Your task to perform on an android device: open chrome privacy settings Image 0: 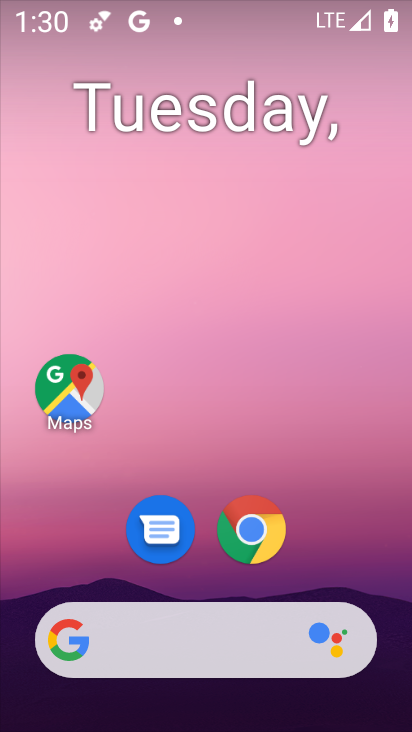
Step 0: click (266, 534)
Your task to perform on an android device: open chrome privacy settings Image 1: 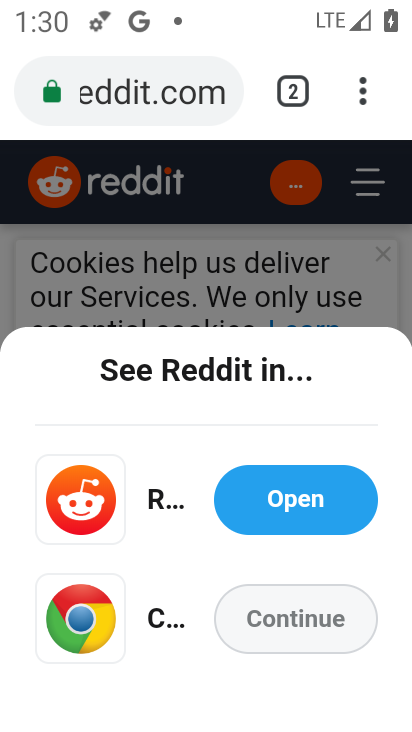
Step 1: click (362, 94)
Your task to perform on an android device: open chrome privacy settings Image 2: 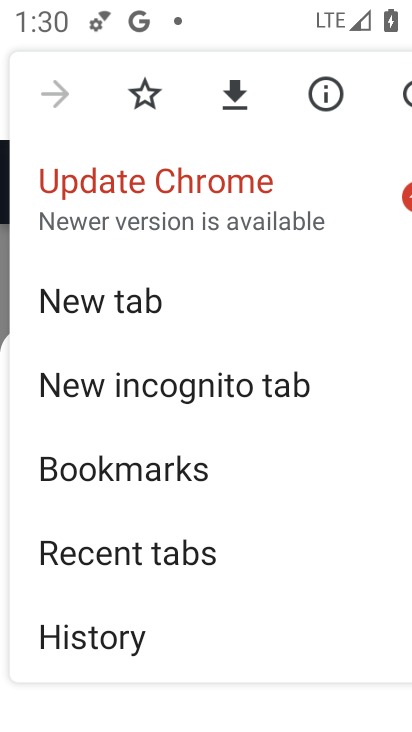
Step 2: drag from (322, 570) to (316, 289)
Your task to perform on an android device: open chrome privacy settings Image 3: 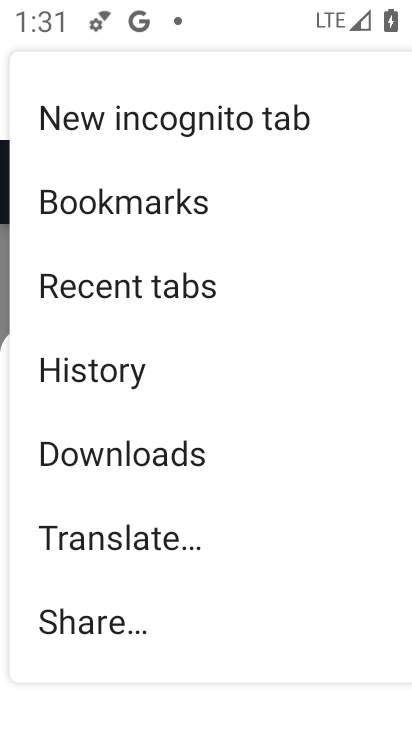
Step 3: drag from (315, 616) to (321, 186)
Your task to perform on an android device: open chrome privacy settings Image 4: 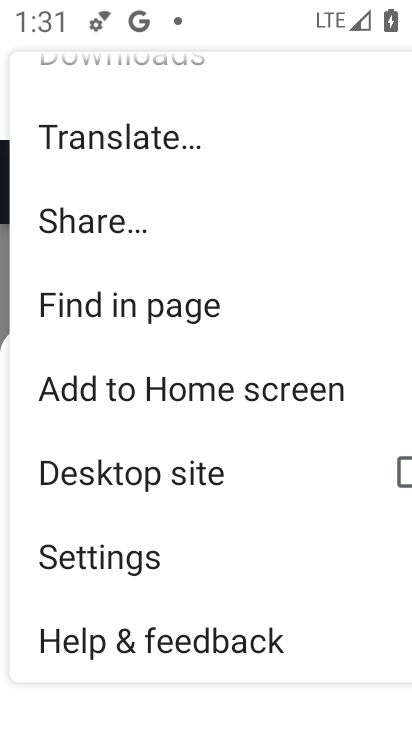
Step 4: click (110, 555)
Your task to perform on an android device: open chrome privacy settings Image 5: 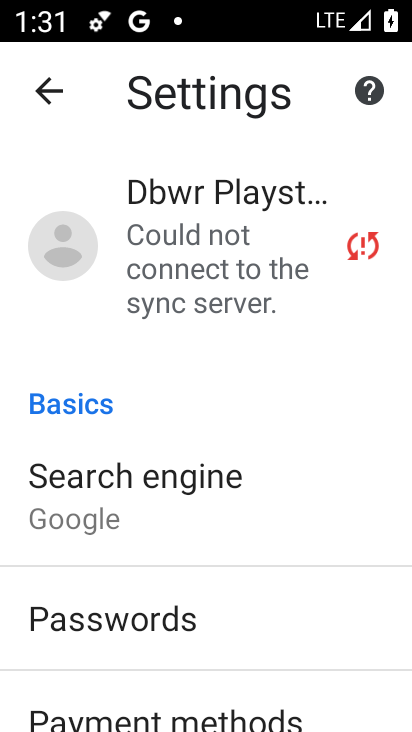
Step 5: drag from (248, 662) to (260, 231)
Your task to perform on an android device: open chrome privacy settings Image 6: 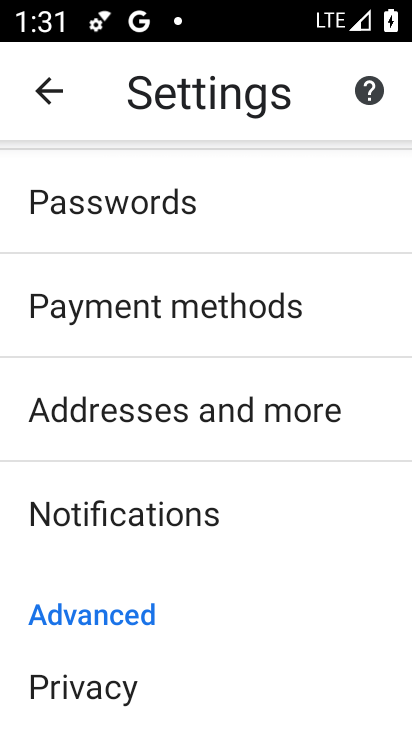
Step 6: click (102, 686)
Your task to perform on an android device: open chrome privacy settings Image 7: 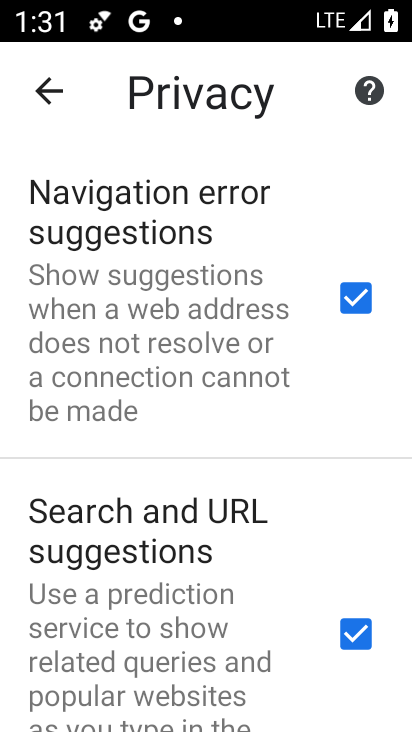
Step 7: task complete